Your task to perform on an android device: choose inbox layout in the gmail app Image 0: 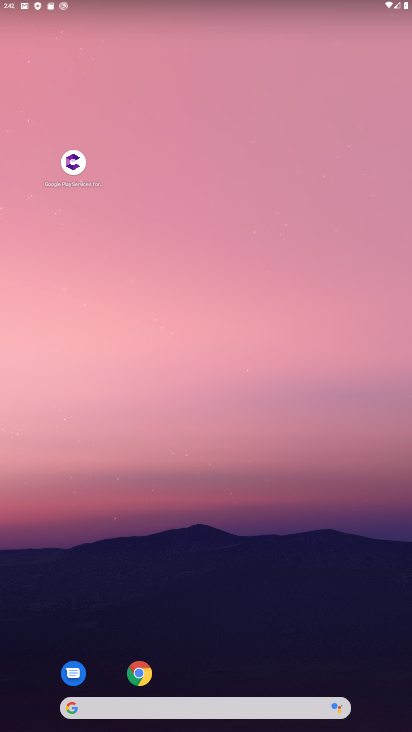
Step 0: drag from (247, 660) to (159, 370)
Your task to perform on an android device: choose inbox layout in the gmail app Image 1: 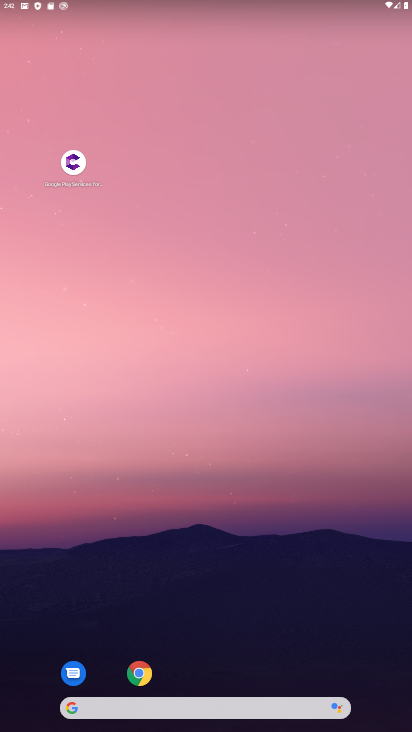
Step 1: drag from (250, 627) to (153, 176)
Your task to perform on an android device: choose inbox layout in the gmail app Image 2: 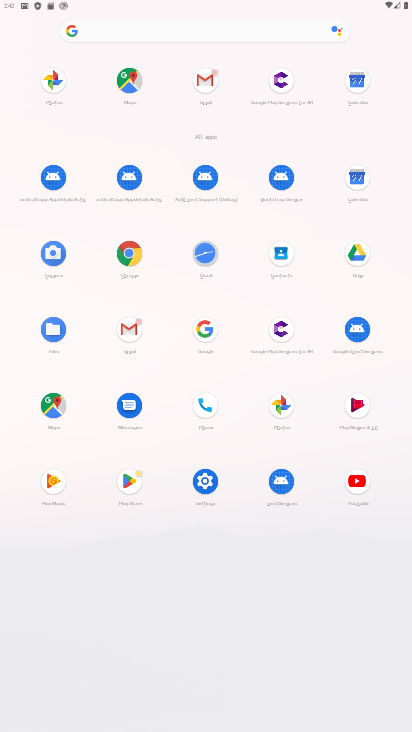
Step 2: click (201, 86)
Your task to perform on an android device: choose inbox layout in the gmail app Image 3: 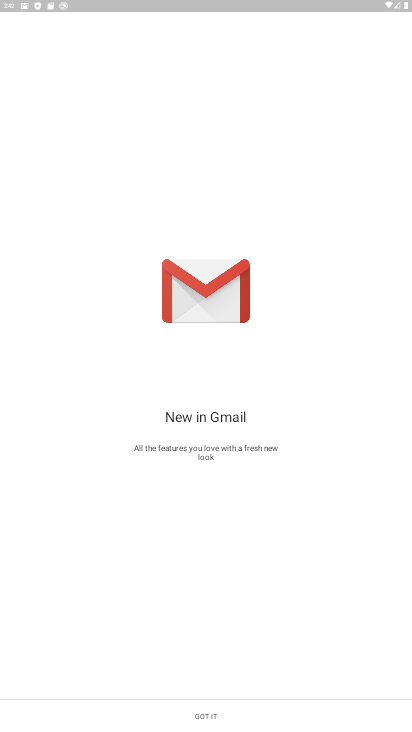
Step 3: click (292, 713)
Your task to perform on an android device: choose inbox layout in the gmail app Image 4: 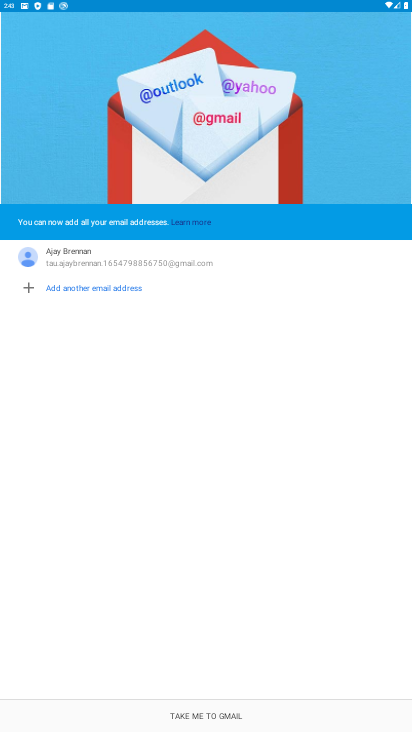
Step 4: click (240, 713)
Your task to perform on an android device: choose inbox layout in the gmail app Image 5: 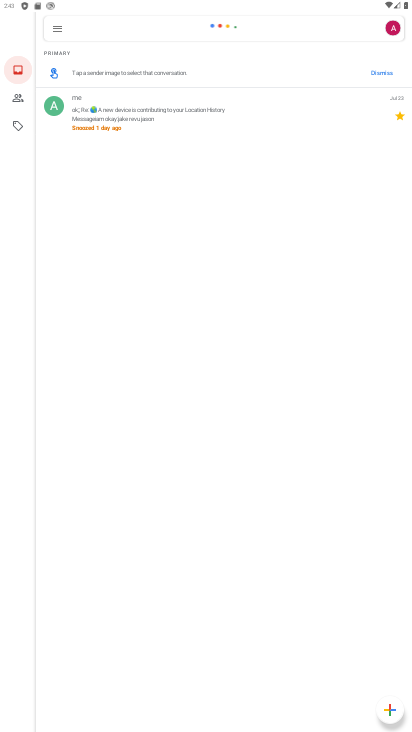
Step 5: click (52, 20)
Your task to perform on an android device: choose inbox layout in the gmail app Image 6: 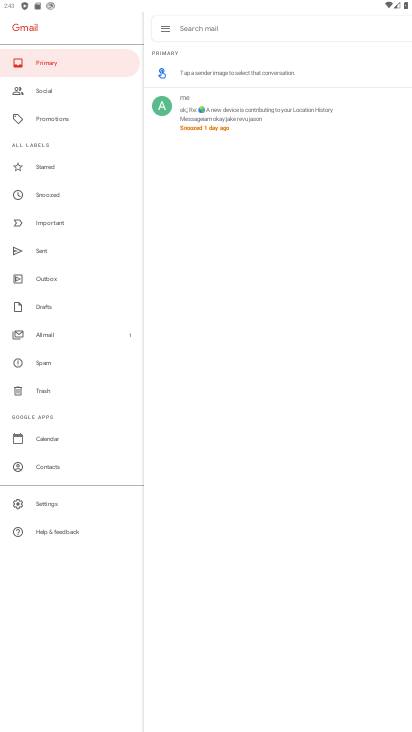
Step 6: click (46, 493)
Your task to perform on an android device: choose inbox layout in the gmail app Image 7: 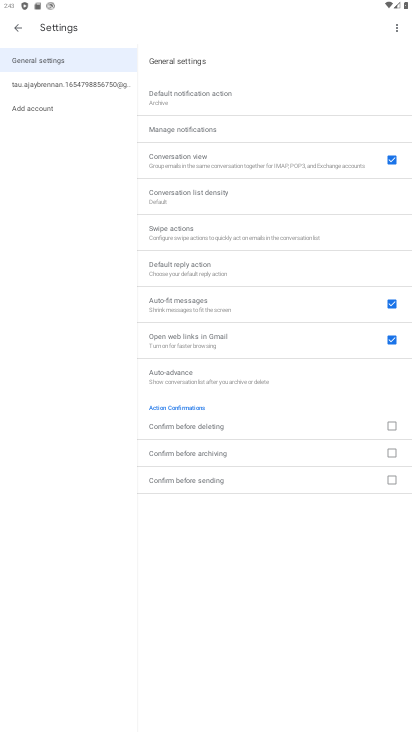
Step 7: click (33, 82)
Your task to perform on an android device: choose inbox layout in the gmail app Image 8: 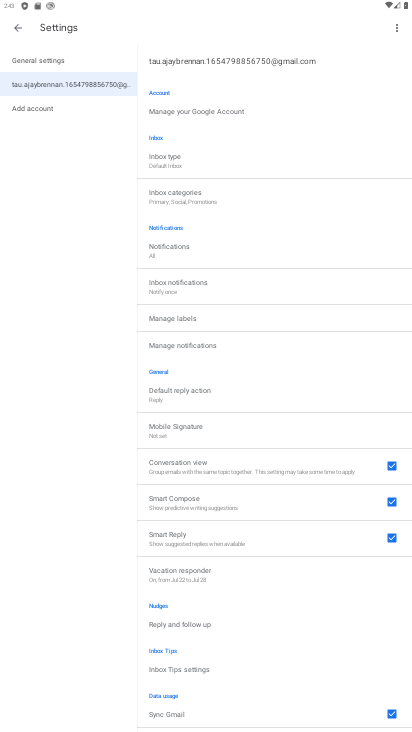
Step 8: click (184, 165)
Your task to perform on an android device: choose inbox layout in the gmail app Image 9: 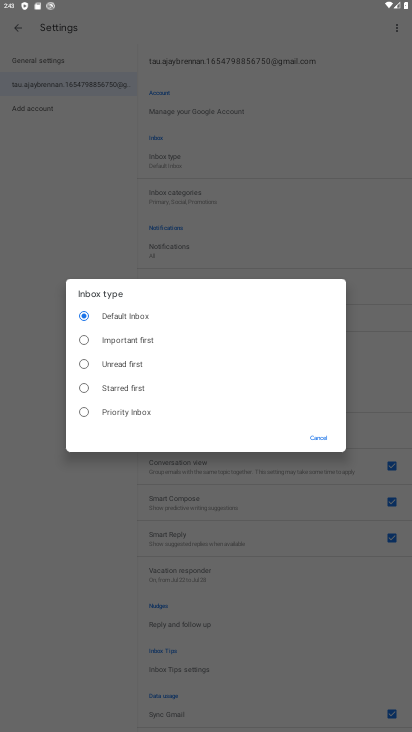
Step 9: click (142, 398)
Your task to perform on an android device: choose inbox layout in the gmail app Image 10: 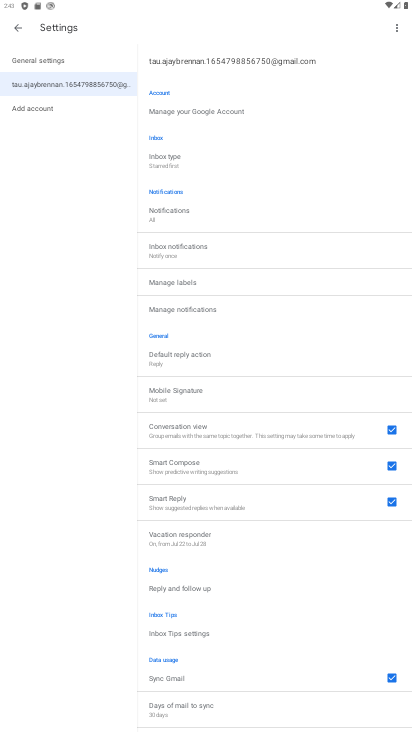
Step 10: task complete